Your task to perform on an android device: Show me the alarms in the clock app Image 0: 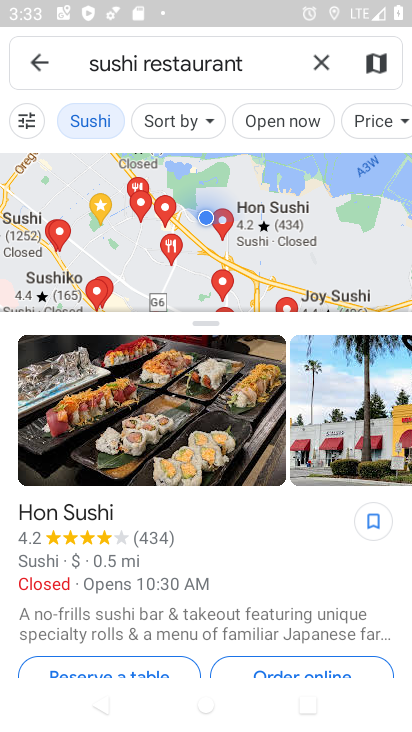
Step 0: press back button
Your task to perform on an android device: Show me the alarms in the clock app Image 1: 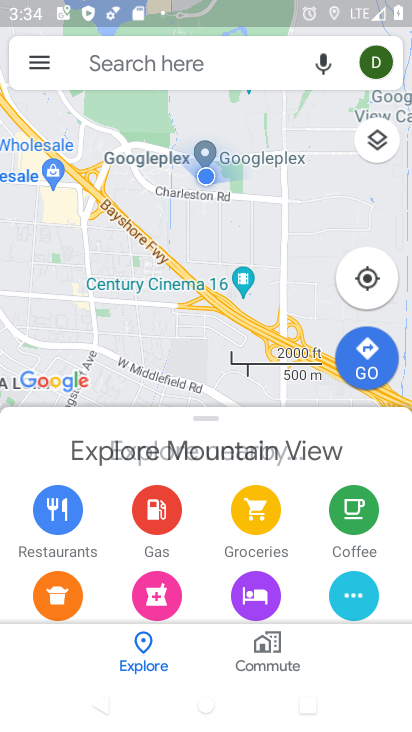
Step 1: press back button
Your task to perform on an android device: Show me the alarms in the clock app Image 2: 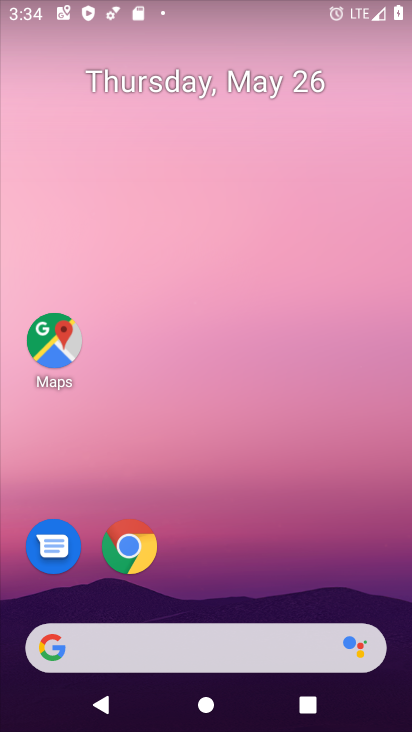
Step 2: drag from (194, 571) to (276, 60)
Your task to perform on an android device: Show me the alarms in the clock app Image 3: 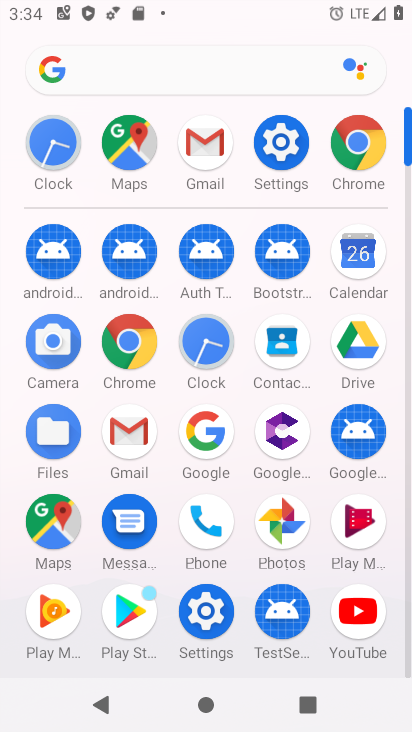
Step 3: click (203, 343)
Your task to perform on an android device: Show me the alarms in the clock app Image 4: 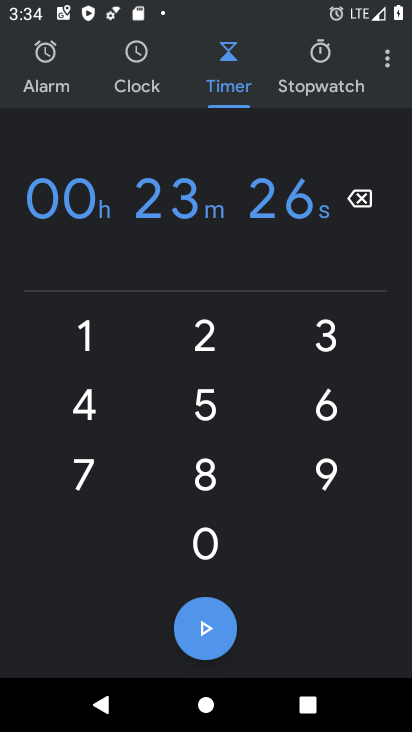
Step 4: click (42, 56)
Your task to perform on an android device: Show me the alarms in the clock app Image 5: 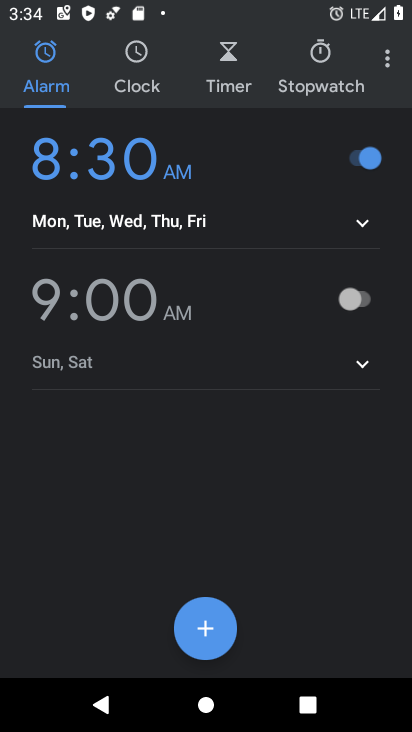
Step 5: task complete